Your task to perform on an android device: turn off improve location accuracy Image 0: 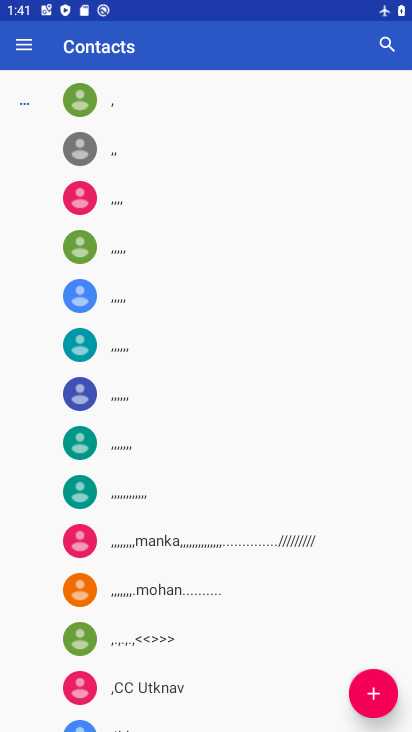
Step 0: press home button
Your task to perform on an android device: turn off improve location accuracy Image 1: 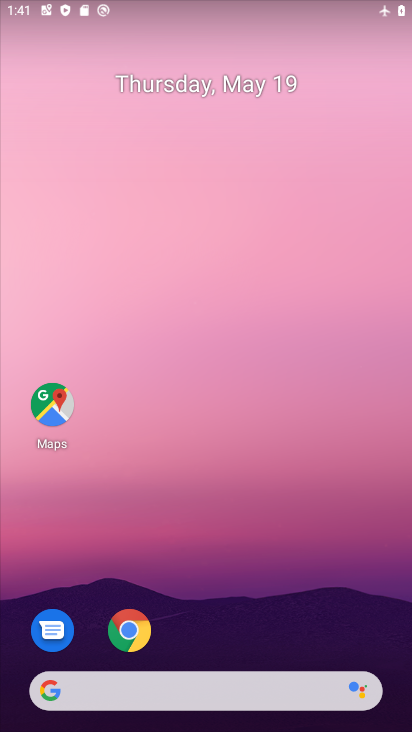
Step 1: drag from (217, 665) to (152, 81)
Your task to perform on an android device: turn off improve location accuracy Image 2: 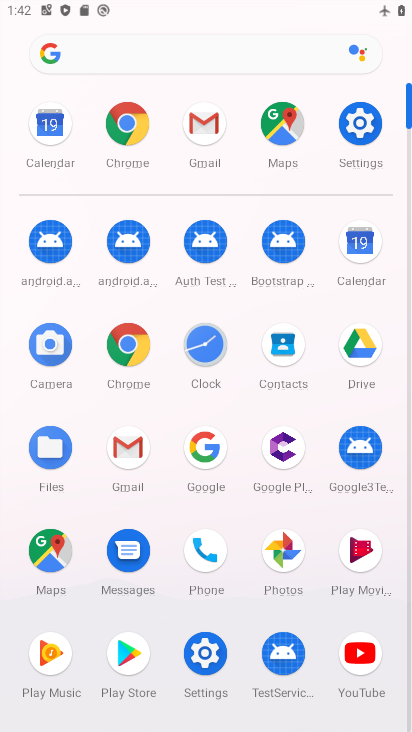
Step 2: click (203, 651)
Your task to perform on an android device: turn off improve location accuracy Image 3: 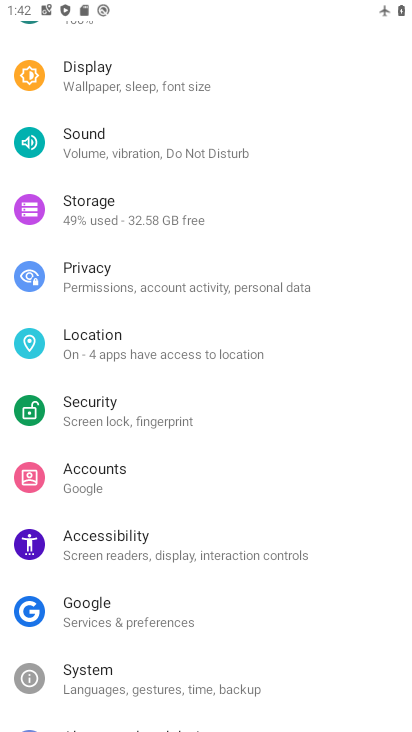
Step 3: click (95, 347)
Your task to perform on an android device: turn off improve location accuracy Image 4: 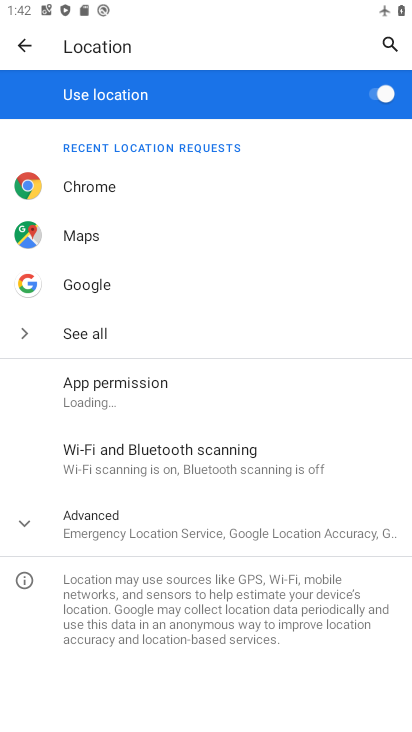
Step 4: click (89, 528)
Your task to perform on an android device: turn off improve location accuracy Image 5: 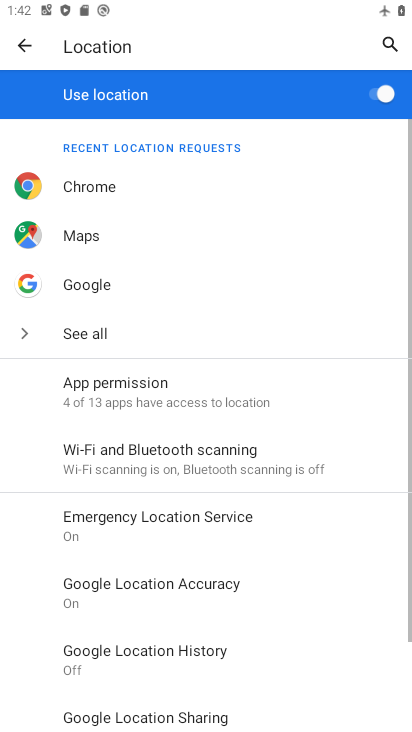
Step 5: click (170, 591)
Your task to perform on an android device: turn off improve location accuracy Image 6: 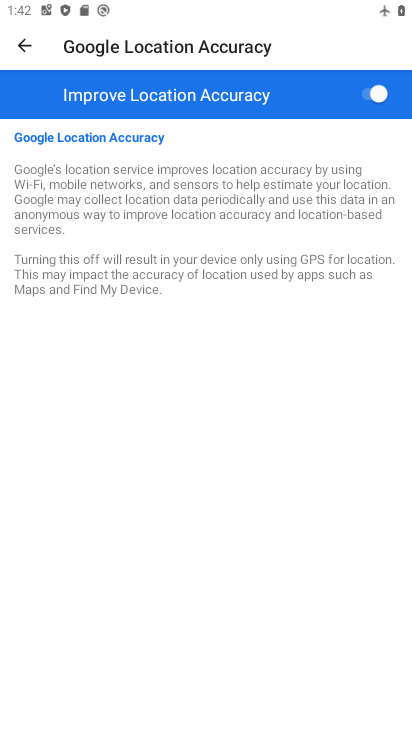
Step 6: click (363, 97)
Your task to perform on an android device: turn off improve location accuracy Image 7: 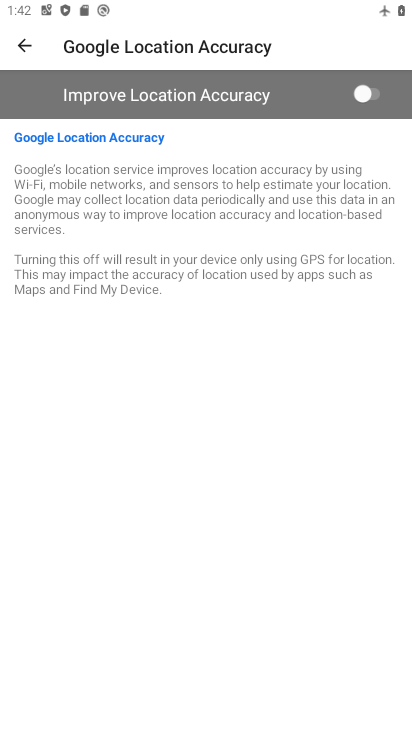
Step 7: task complete